Your task to perform on an android device: Go to Google Image 0: 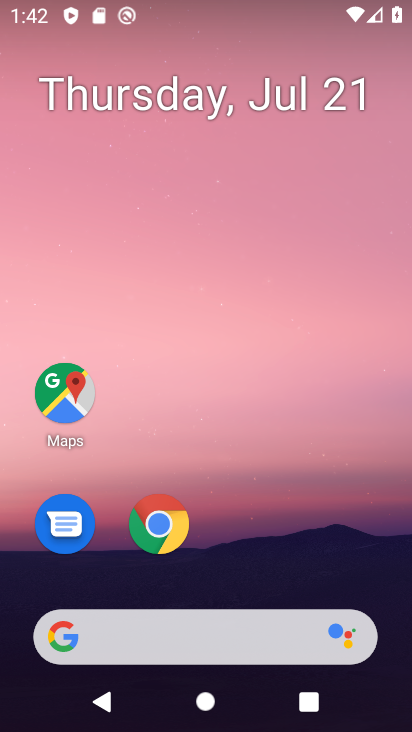
Step 0: drag from (272, 531) to (283, 54)
Your task to perform on an android device: Go to Google Image 1: 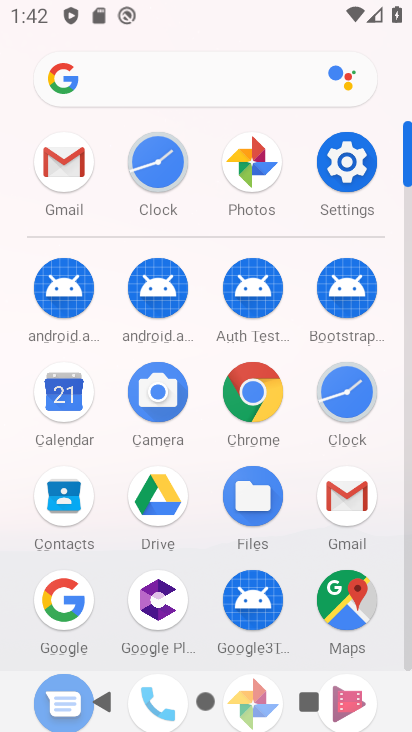
Step 1: click (60, 601)
Your task to perform on an android device: Go to Google Image 2: 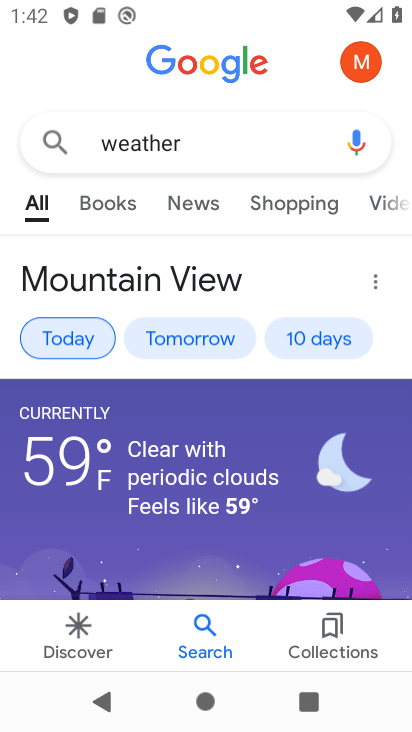
Step 2: click (239, 57)
Your task to perform on an android device: Go to Google Image 3: 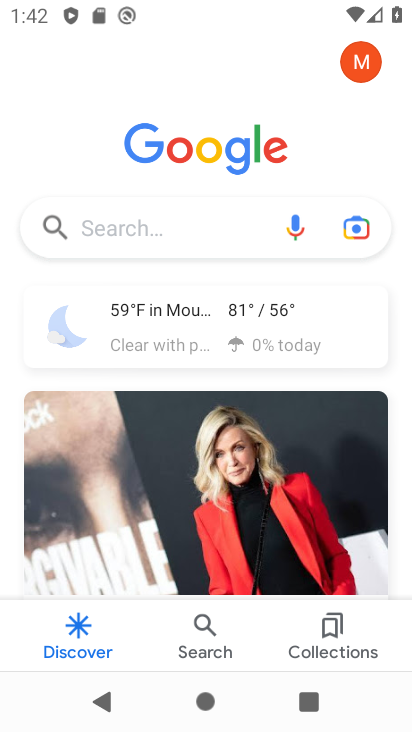
Step 3: task complete